Your task to perform on an android device: delete browsing data in the chrome app Image 0: 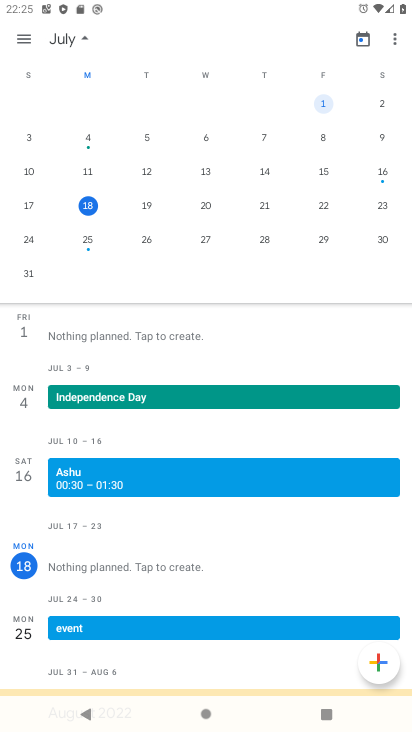
Step 0: press home button
Your task to perform on an android device: delete browsing data in the chrome app Image 1: 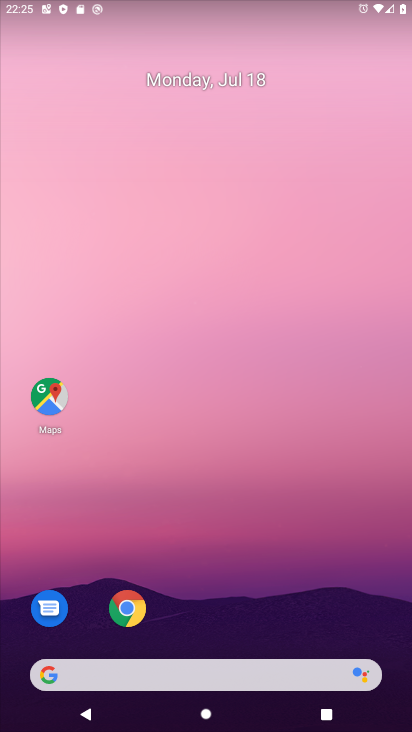
Step 1: click (124, 608)
Your task to perform on an android device: delete browsing data in the chrome app Image 2: 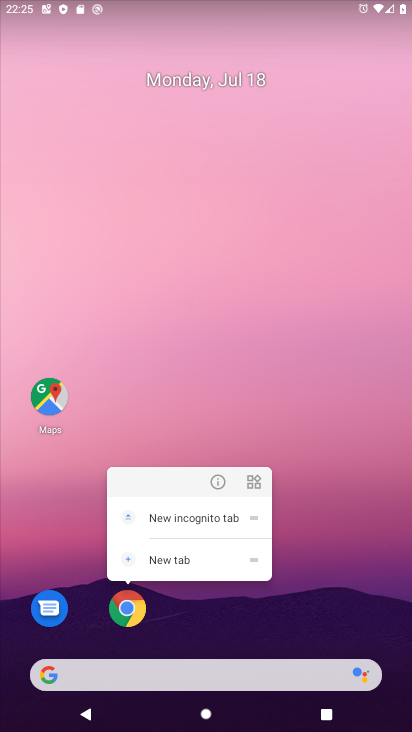
Step 2: click (124, 608)
Your task to perform on an android device: delete browsing data in the chrome app Image 3: 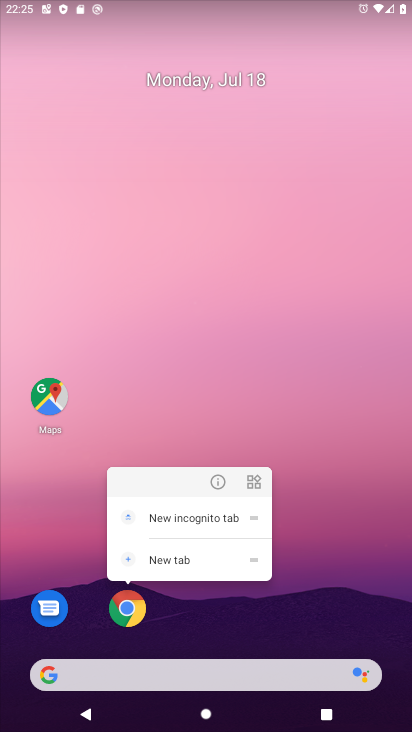
Step 3: click (124, 608)
Your task to perform on an android device: delete browsing data in the chrome app Image 4: 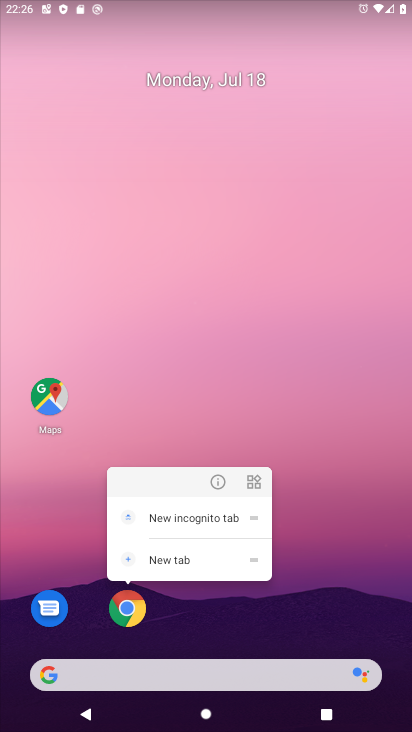
Step 4: click (124, 608)
Your task to perform on an android device: delete browsing data in the chrome app Image 5: 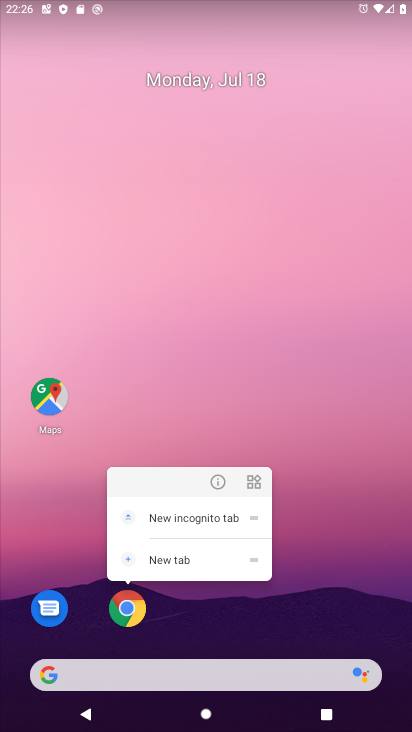
Step 5: click (125, 609)
Your task to perform on an android device: delete browsing data in the chrome app Image 6: 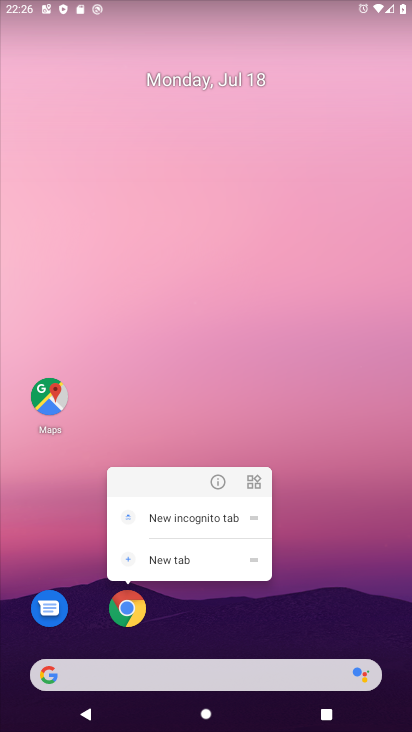
Step 6: task complete